Your task to perform on an android device: open app "Viber Messenger" Image 0: 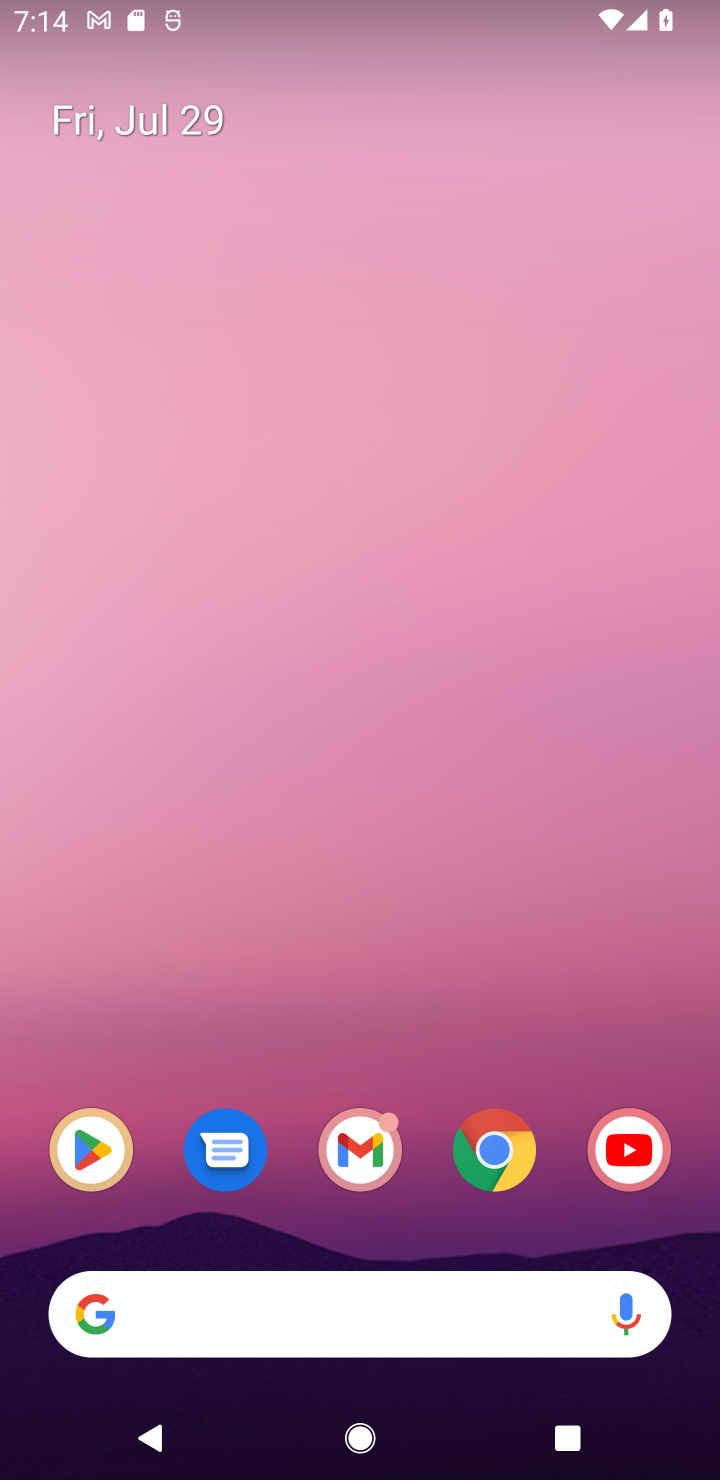
Step 0: drag from (371, 757) to (411, 128)
Your task to perform on an android device: open app "Viber Messenger" Image 1: 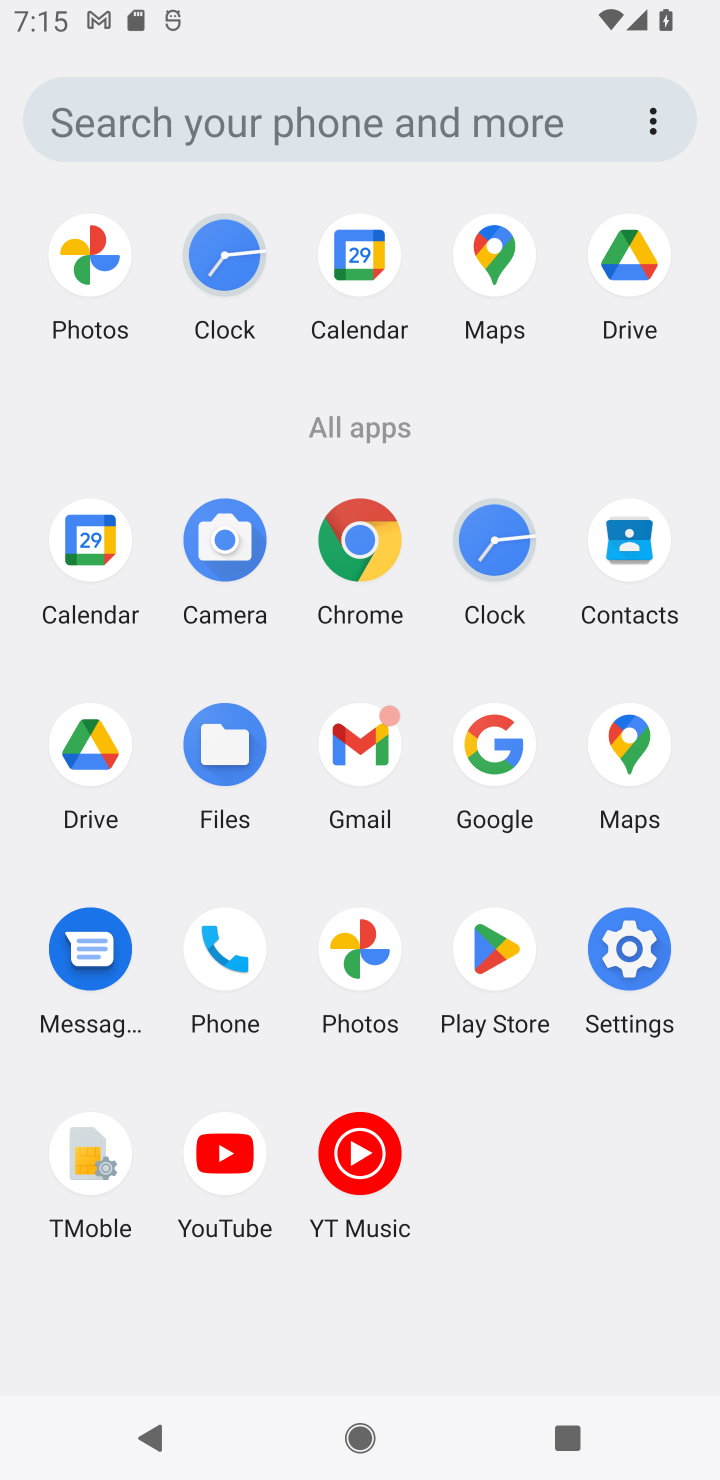
Step 1: press home button
Your task to perform on an android device: open app "Viber Messenger" Image 2: 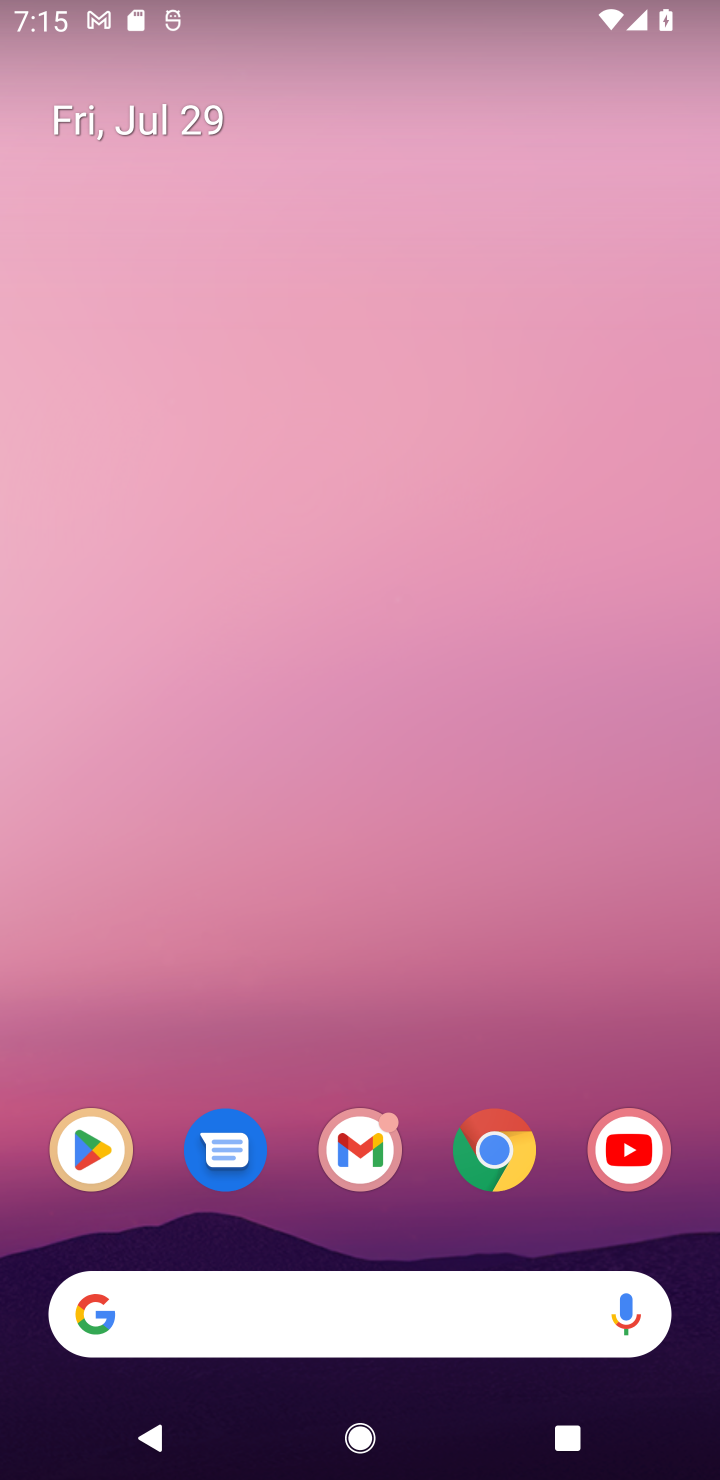
Step 2: drag from (364, 571) to (364, 345)
Your task to perform on an android device: open app "Viber Messenger" Image 3: 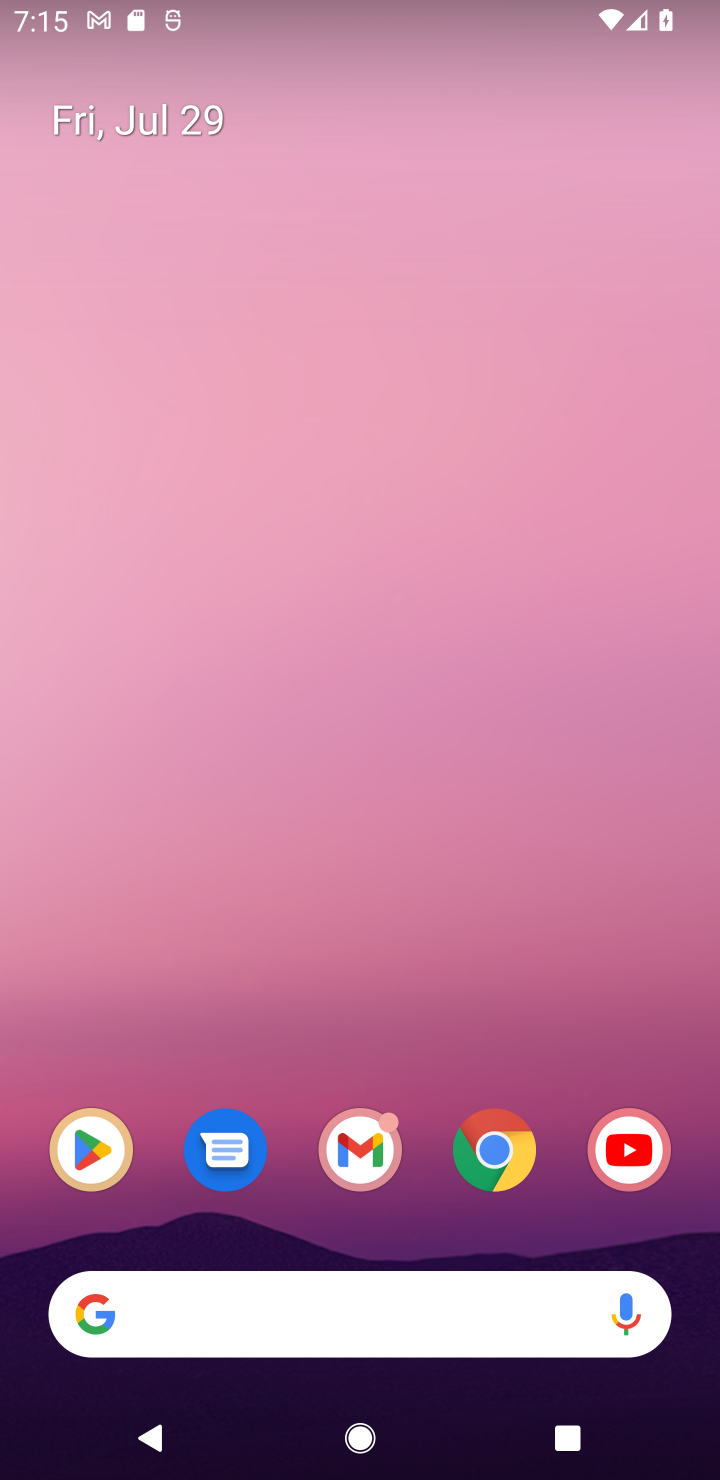
Step 3: click (63, 1143)
Your task to perform on an android device: open app "Viber Messenger" Image 4: 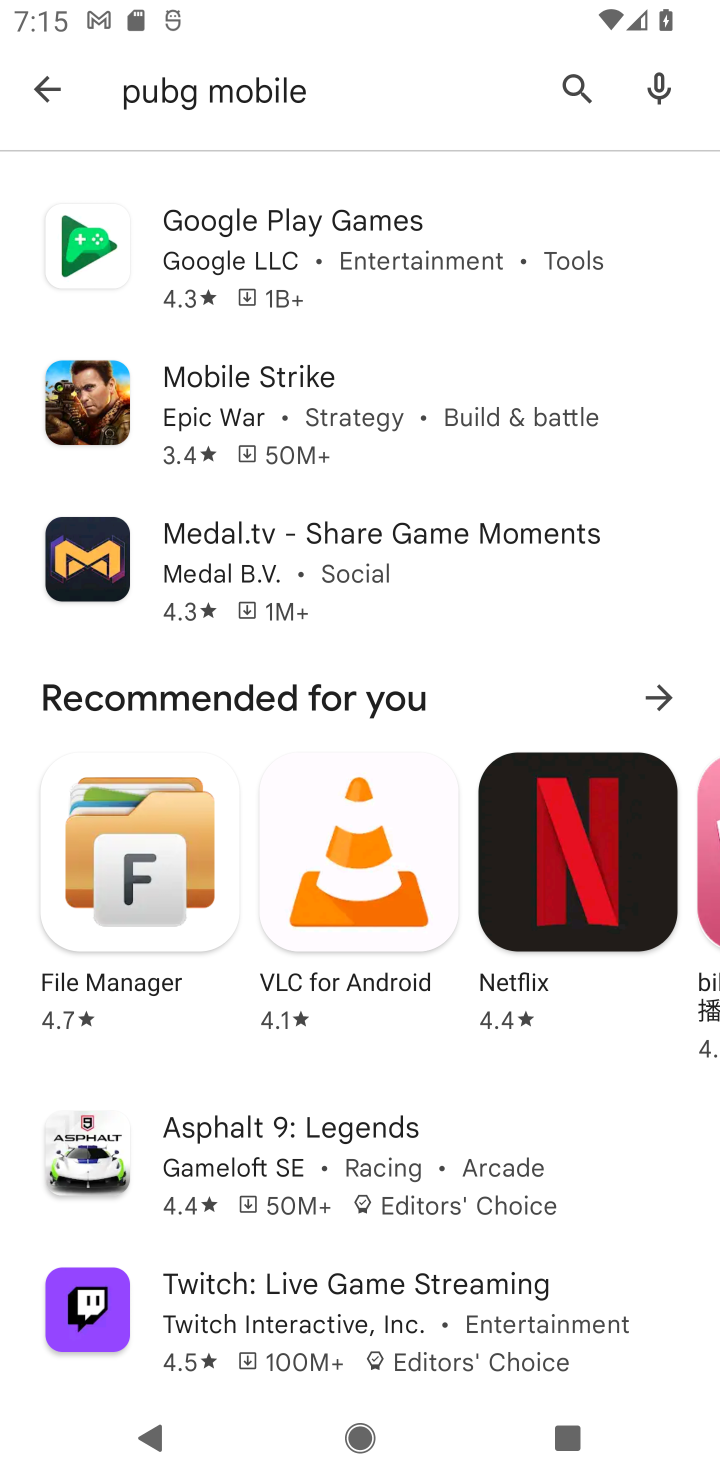
Step 4: click (25, 87)
Your task to perform on an android device: open app "Viber Messenger" Image 5: 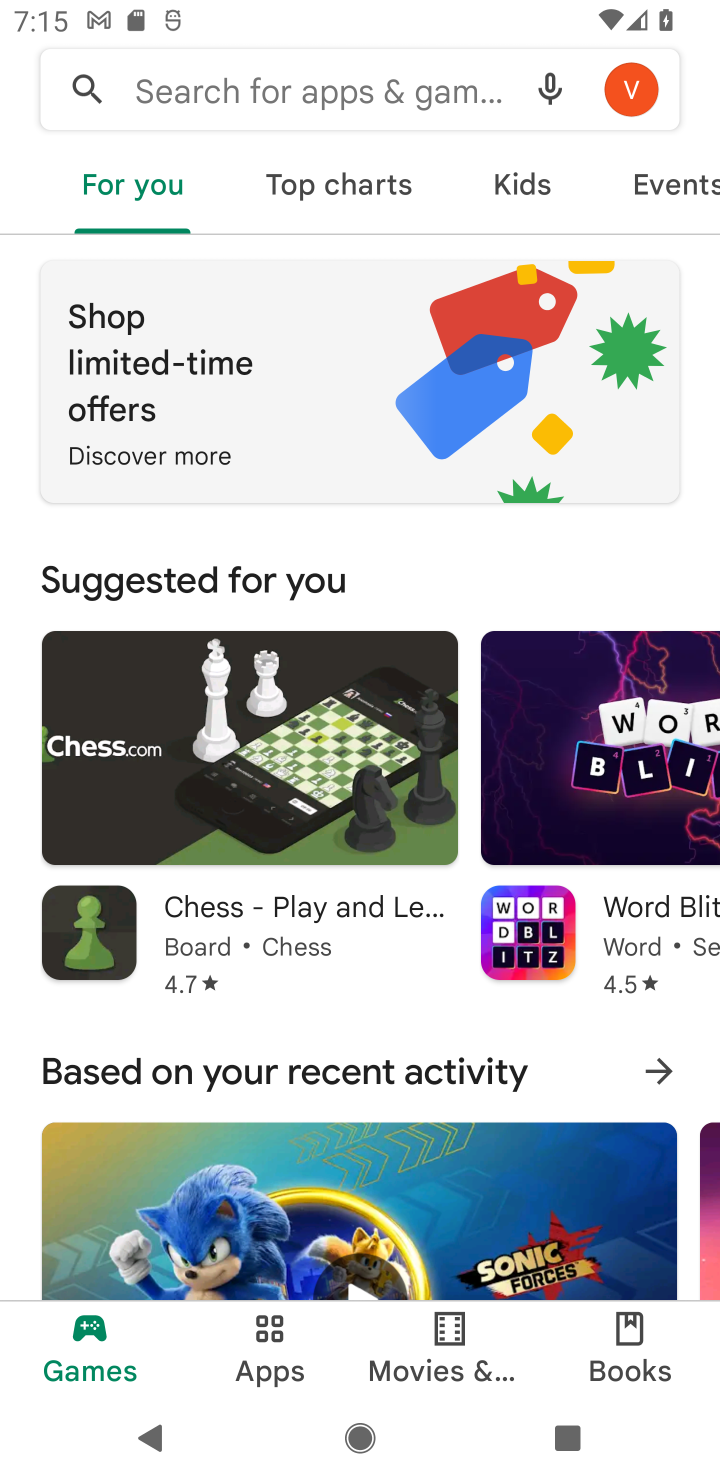
Step 5: click (341, 92)
Your task to perform on an android device: open app "Viber Messenger" Image 6: 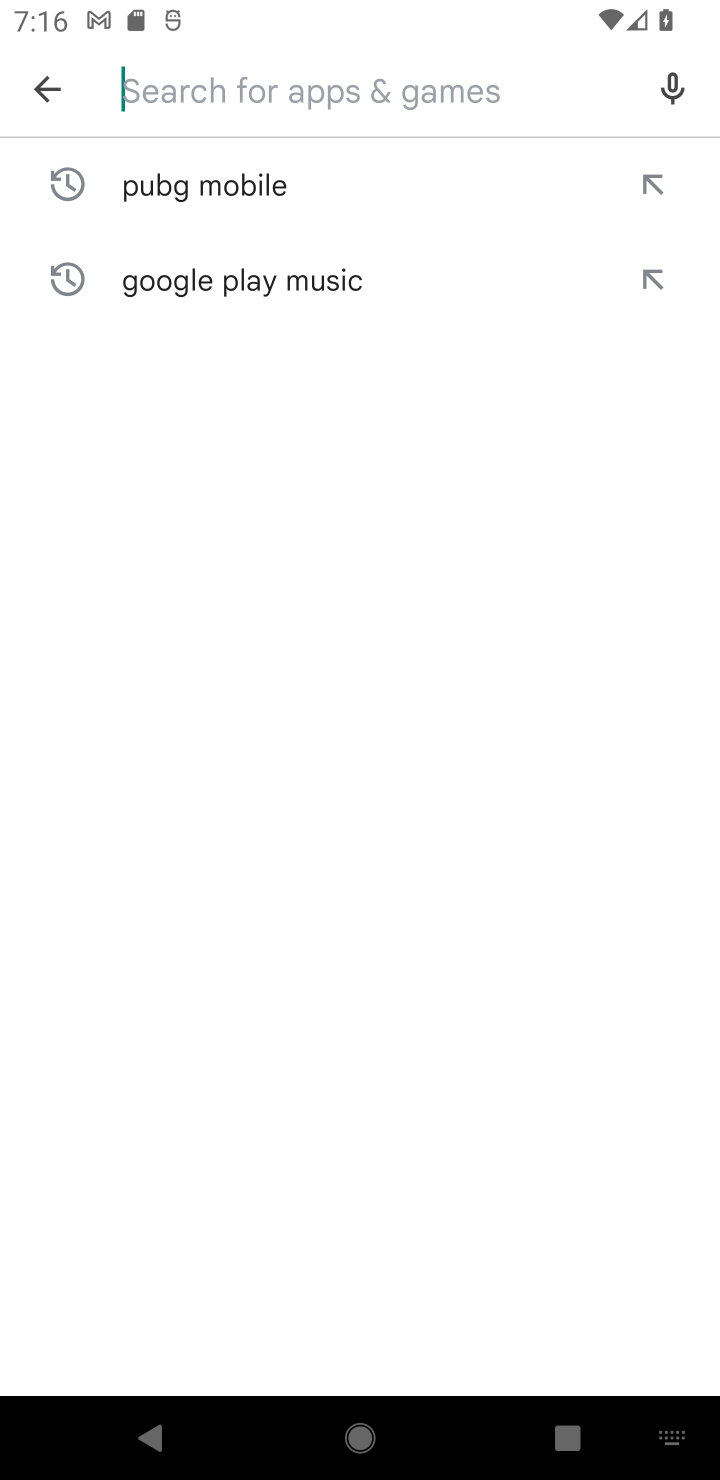
Step 6: type "Viber Messenger"
Your task to perform on an android device: open app "Viber Messenger" Image 7: 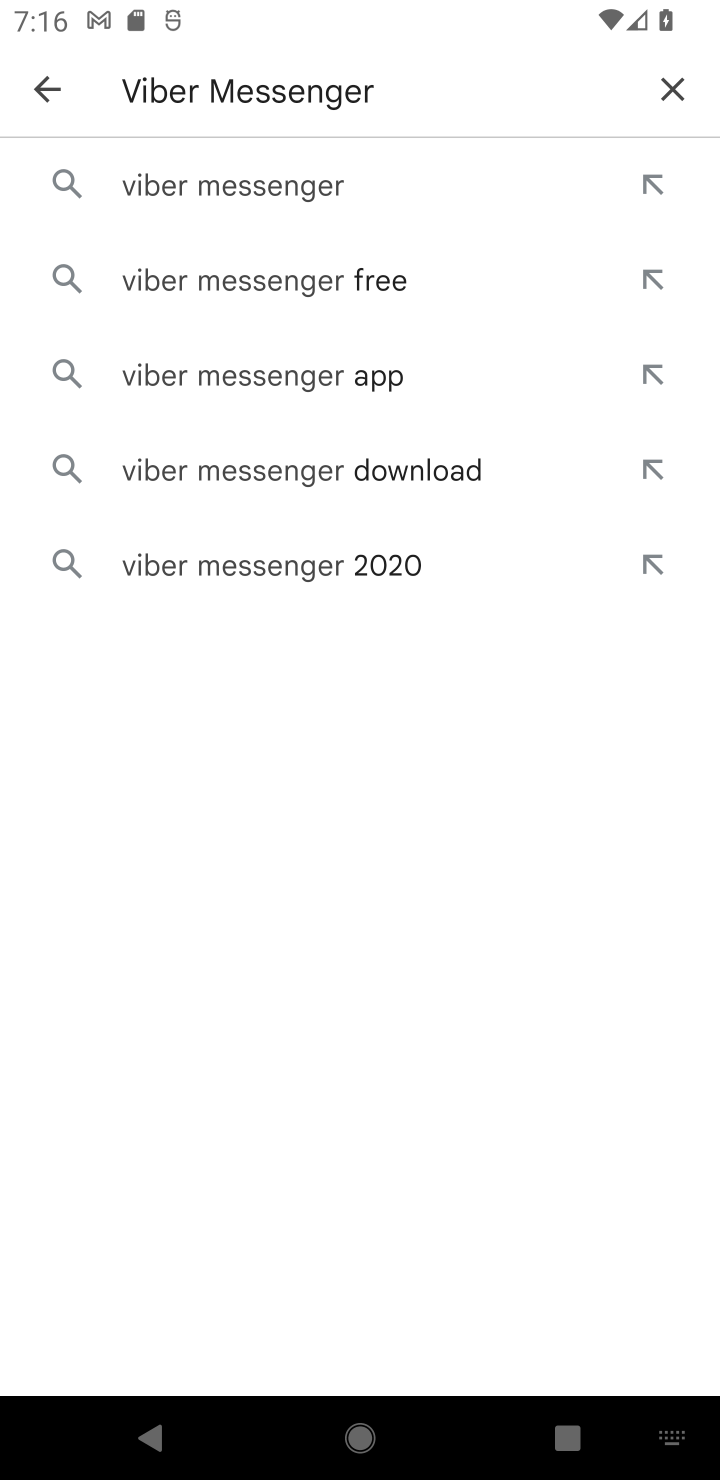
Step 7: click (322, 186)
Your task to perform on an android device: open app "Viber Messenger" Image 8: 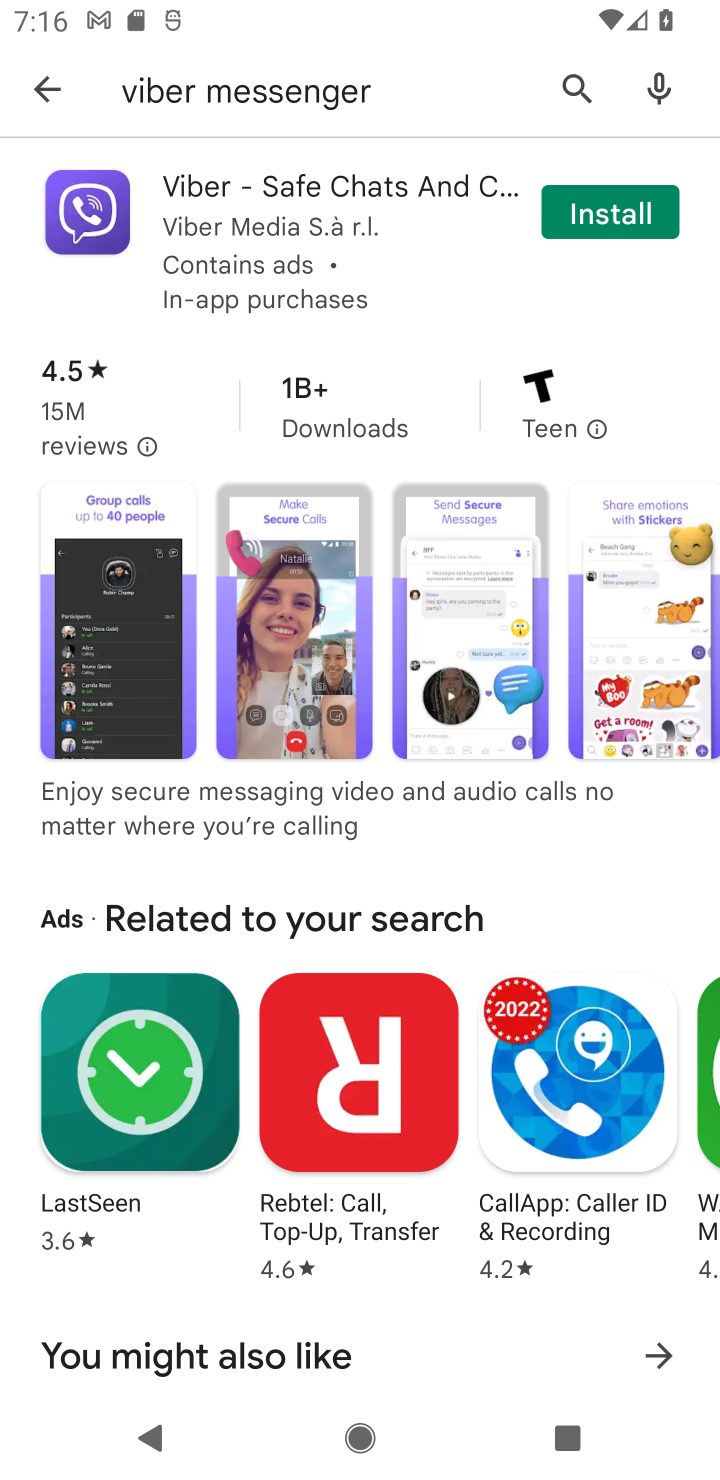
Step 8: click (645, 207)
Your task to perform on an android device: open app "Viber Messenger" Image 9: 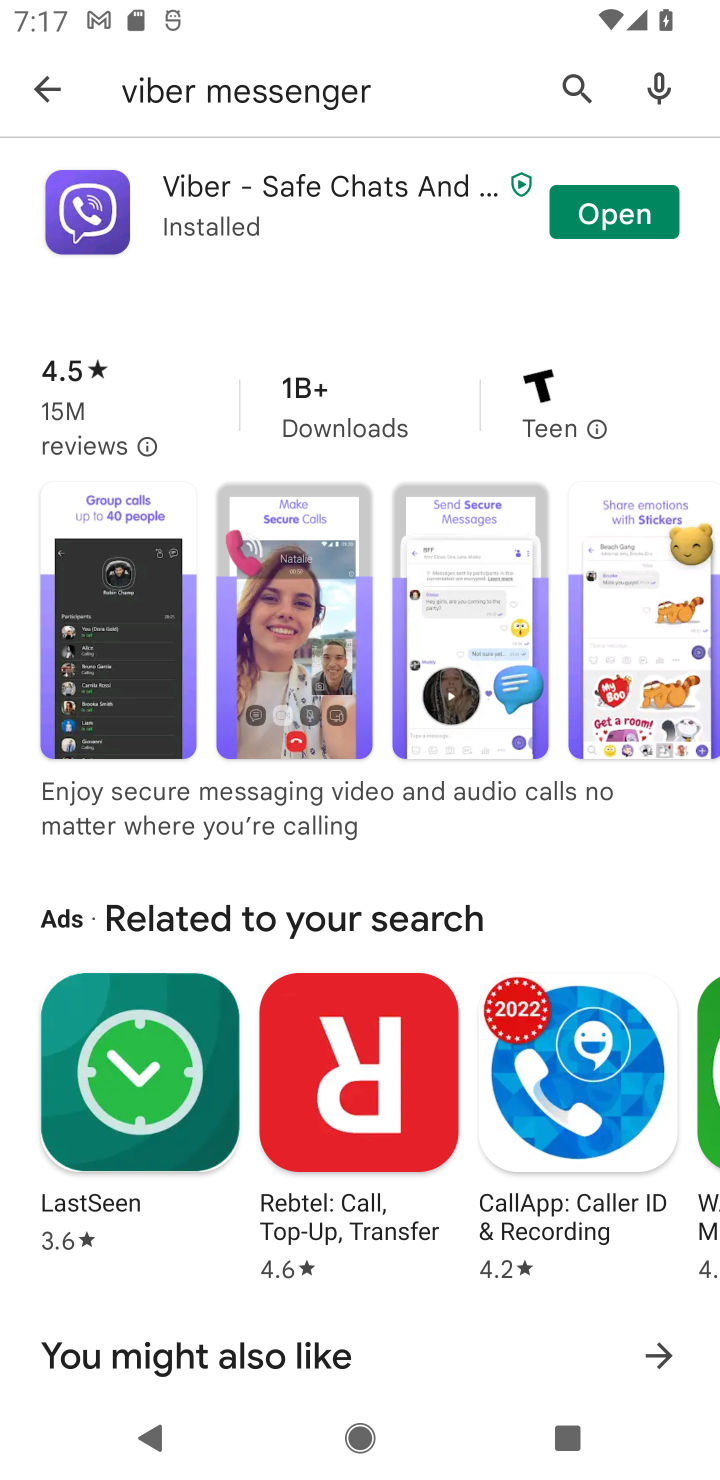
Step 9: click (618, 203)
Your task to perform on an android device: open app "Viber Messenger" Image 10: 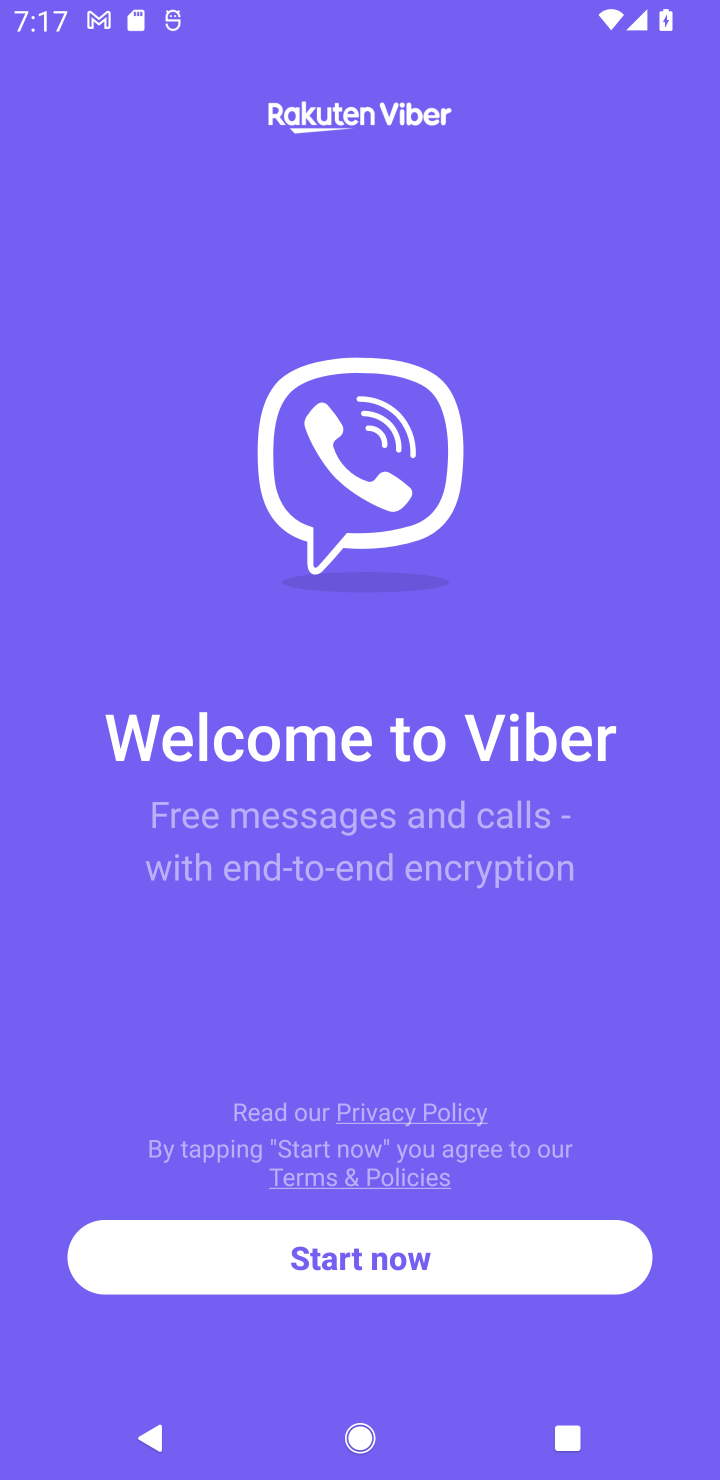
Step 10: task complete